Your task to perform on an android device: install app "Gmail" Image 0: 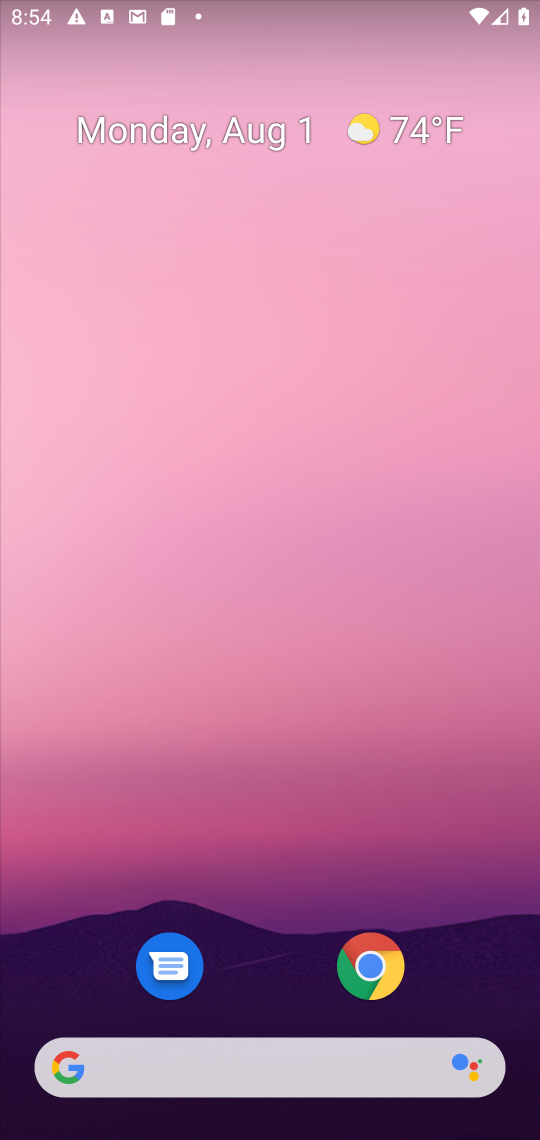
Step 0: drag from (526, 1070) to (416, 219)
Your task to perform on an android device: install app "Gmail" Image 1: 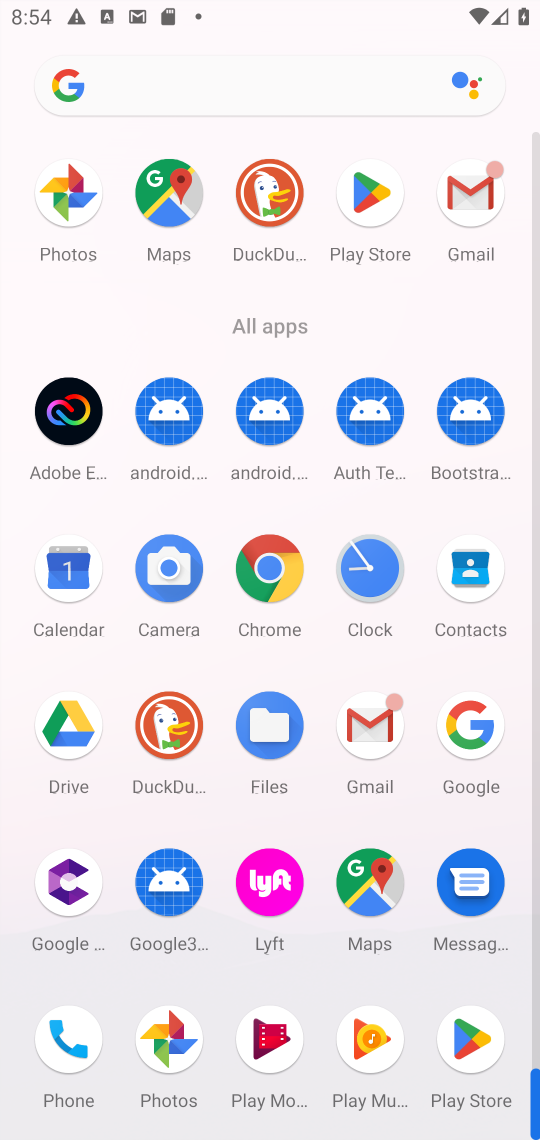
Step 1: task complete